Your task to perform on an android device: Open the phone app and click the voicemail tab. Image 0: 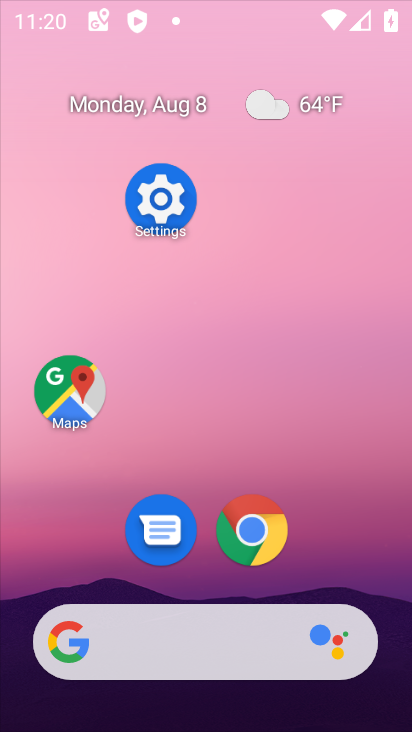
Step 0: drag from (165, 698) to (176, 277)
Your task to perform on an android device: Open the phone app and click the voicemail tab. Image 1: 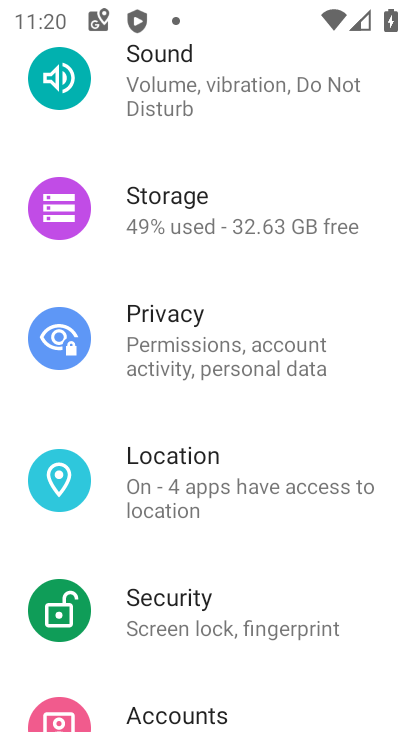
Step 1: drag from (204, 590) to (216, 289)
Your task to perform on an android device: Open the phone app and click the voicemail tab. Image 2: 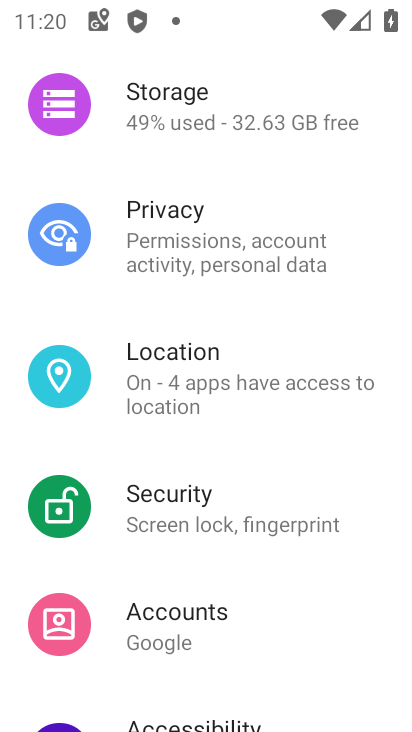
Step 2: press back button
Your task to perform on an android device: Open the phone app and click the voicemail tab. Image 3: 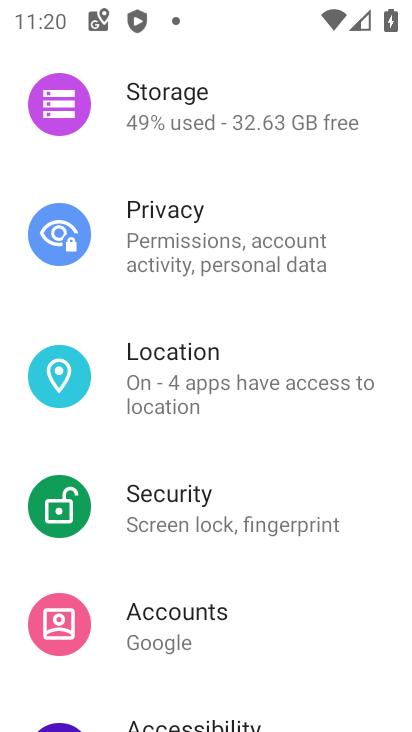
Step 3: press back button
Your task to perform on an android device: Open the phone app and click the voicemail tab. Image 4: 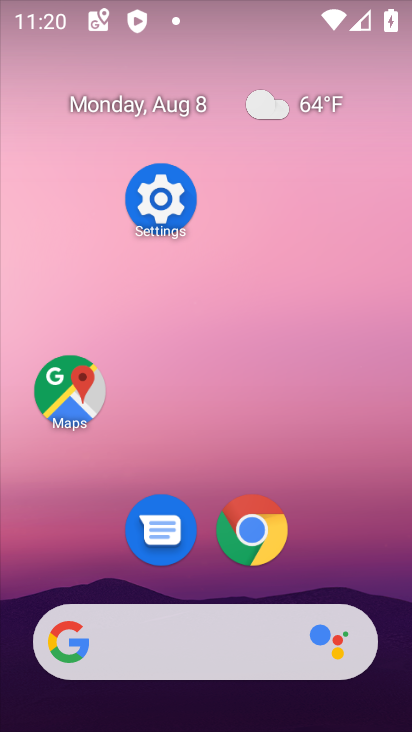
Step 4: drag from (272, 656) to (201, 287)
Your task to perform on an android device: Open the phone app and click the voicemail tab. Image 5: 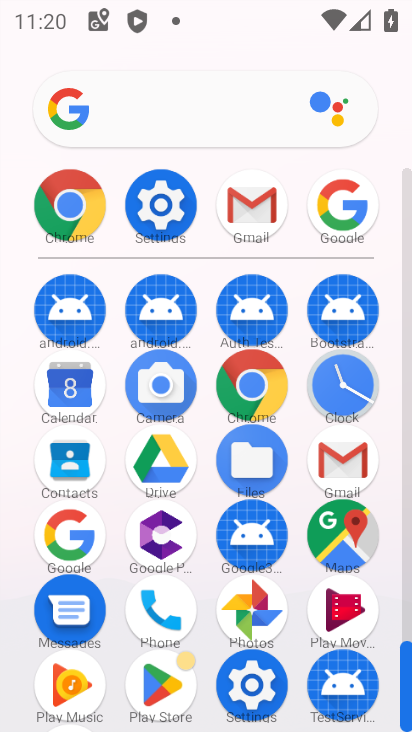
Step 5: drag from (210, 623) to (195, 334)
Your task to perform on an android device: Open the phone app and click the voicemail tab. Image 6: 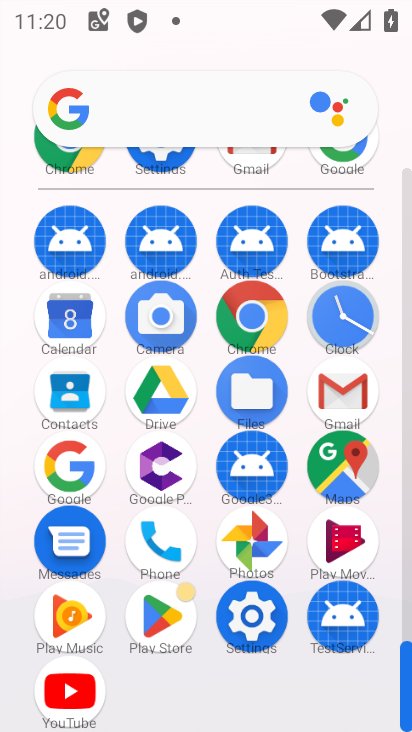
Step 6: drag from (217, 534) to (217, 377)
Your task to perform on an android device: Open the phone app and click the voicemail tab. Image 7: 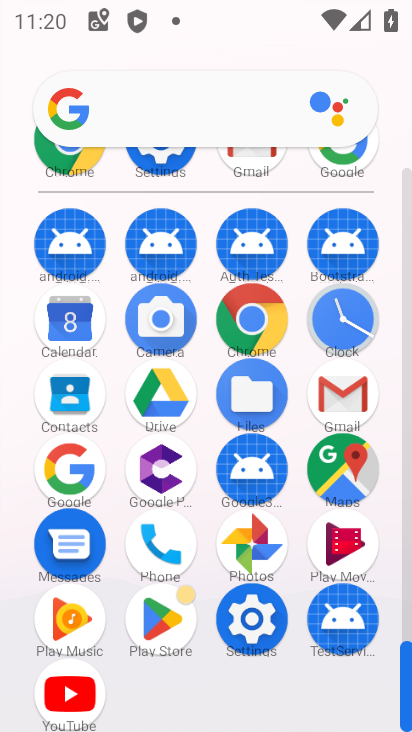
Step 7: click (162, 540)
Your task to perform on an android device: Open the phone app and click the voicemail tab. Image 8: 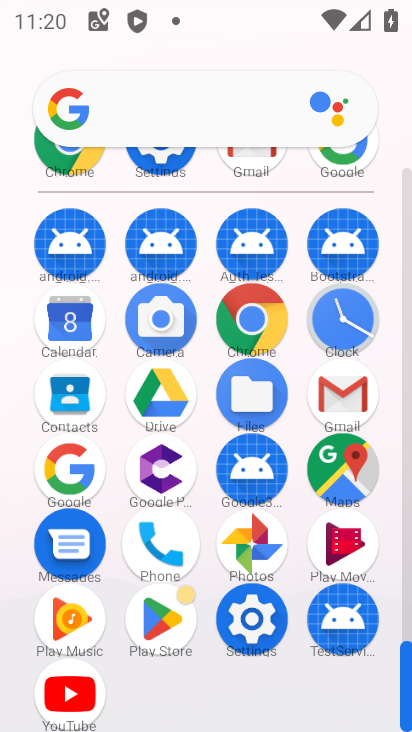
Step 8: click (163, 540)
Your task to perform on an android device: Open the phone app and click the voicemail tab. Image 9: 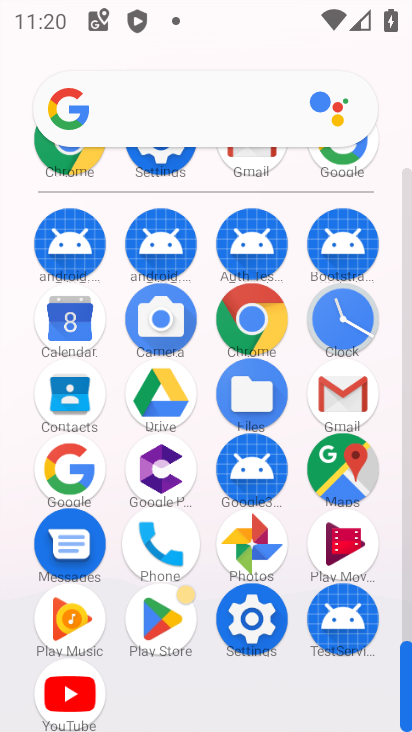
Step 9: click (167, 540)
Your task to perform on an android device: Open the phone app and click the voicemail tab. Image 10: 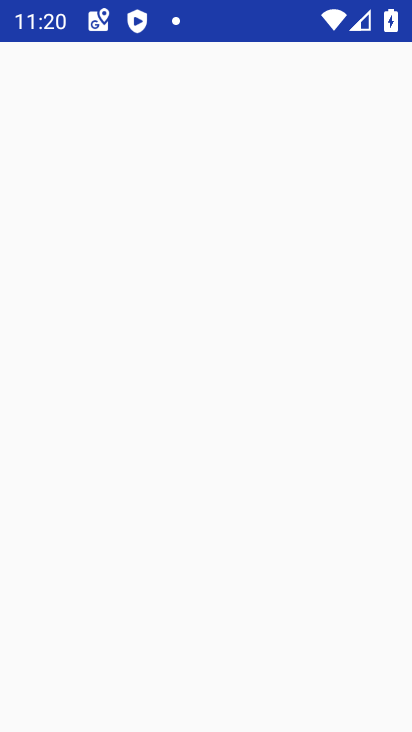
Step 10: click (169, 541)
Your task to perform on an android device: Open the phone app and click the voicemail tab. Image 11: 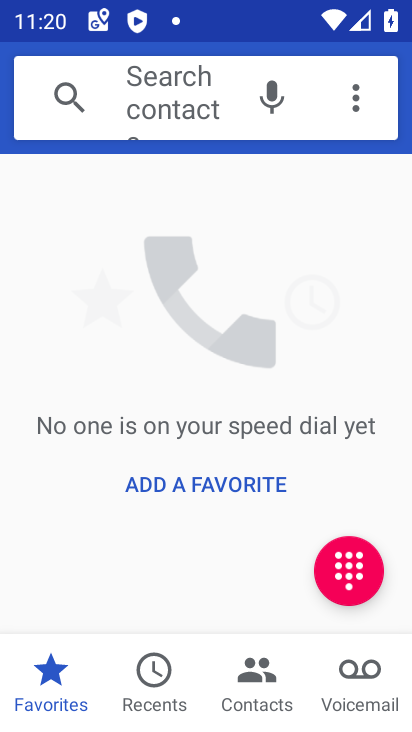
Step 11: click (350, 676)
Your task to perform on an android device: Open the phone app and click the voicemail tab. Image 12: 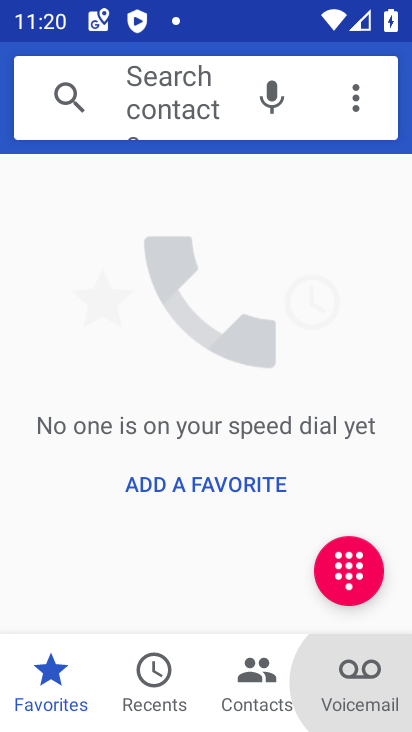
Step 12: click (350, 676)
Your task to perform on an android device: Open the phone app and click the voicemail tab. Image 13: 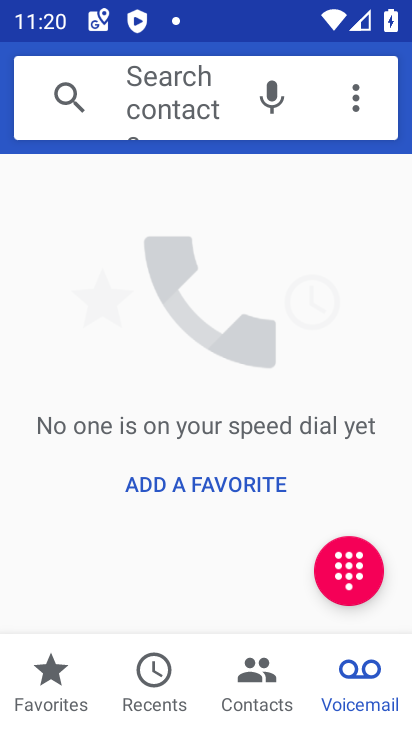
Step 13: click (350, 676)
Your task to perform on an android device: Open the phone app and click the voicemail tab. Image 14: 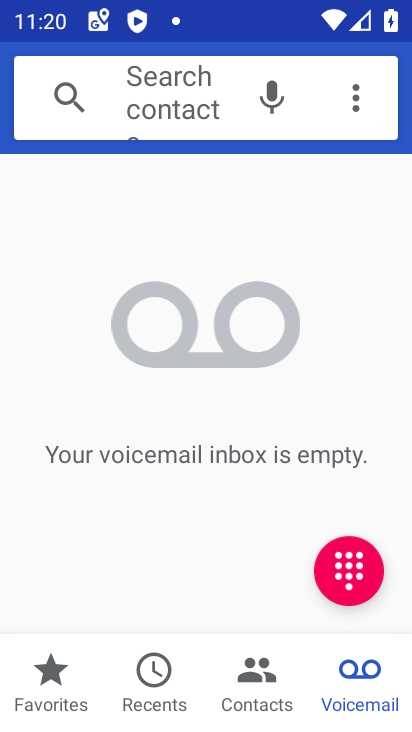
Step 14: task complete